Your task to perform on an android device: What's on my calendar tomorrow? Image 0: 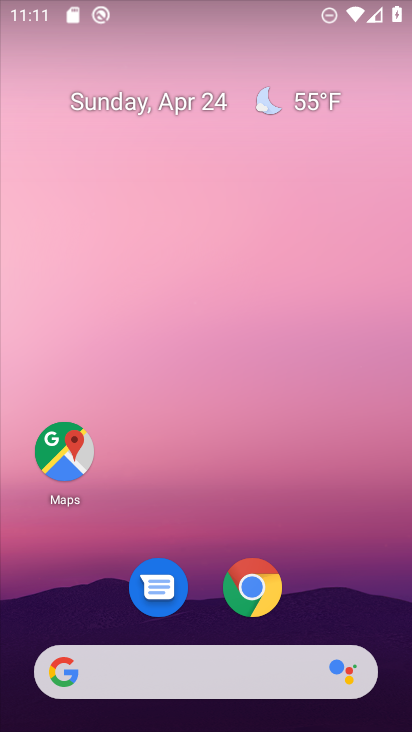
Step 0: drag from (311, 614) to (350, 142)
Your task to perform on an android device: What's on my calendar tomorrow? Image 1: 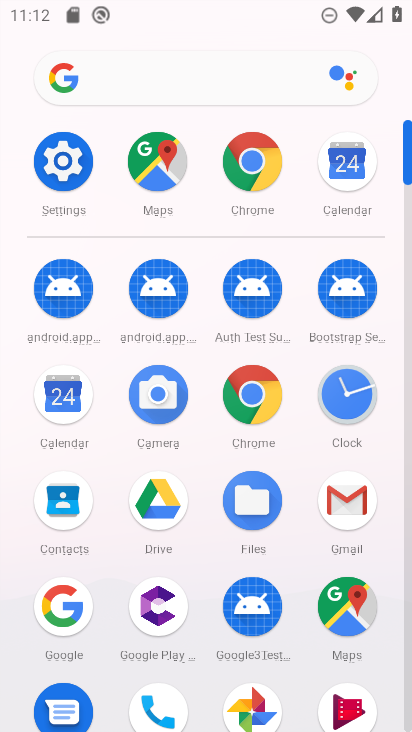
Step 1: click (64, 393)
Your task to perform on an android device: What's on my calendar tomorrow? Image 2: 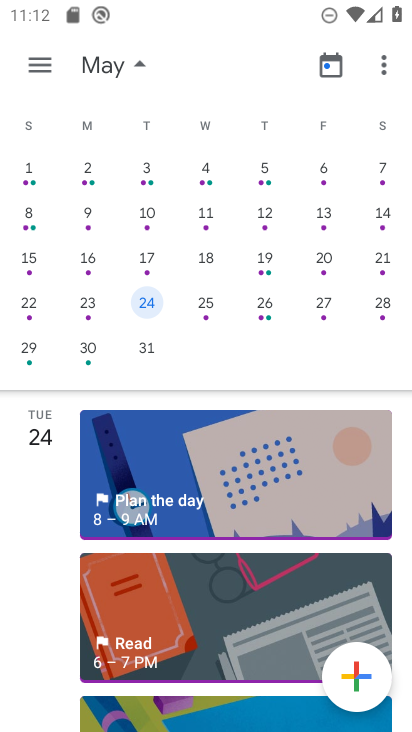
Step 2: drag from (34, 229) to (403, 217)
Your task to perform on an android device: What's on my calendar tomorrow? Image 3: 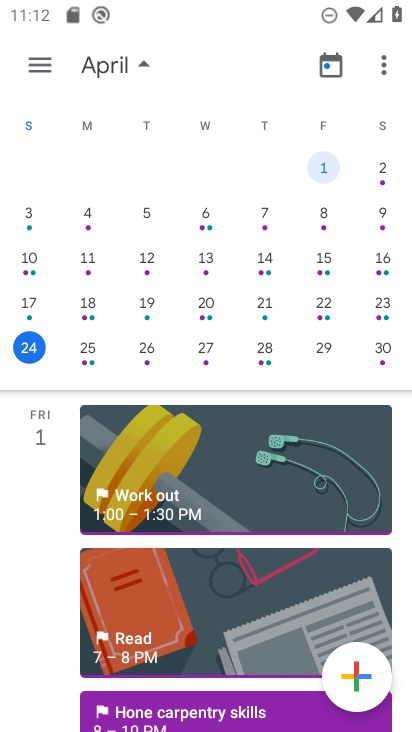
Step 3: click (89, 347)
Your task to perform on an android device: What's on my calendar tomorrow? Image 4: 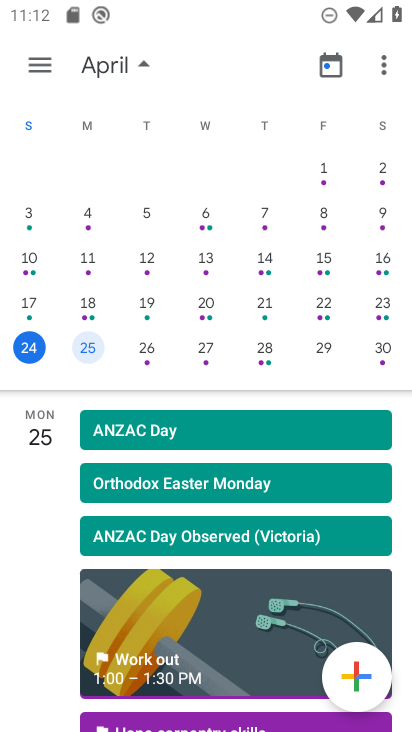
Step 4: task complete